Your task to perform on an android device: turn off improve location accuracy Image 0: 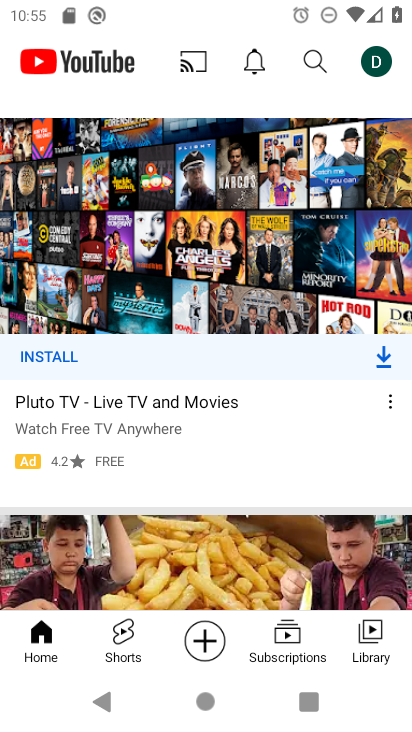
Step 0: press home button
Your task to perform on an android device: turn off improve location accuracy Image 1: 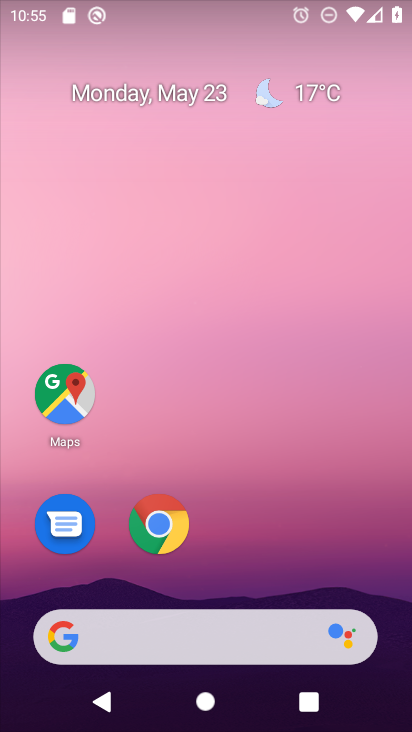
Step 1: drag from (216, 579) to (220, 141)
Your task to perform on an android device: turn off improve location accuracy Image 2: 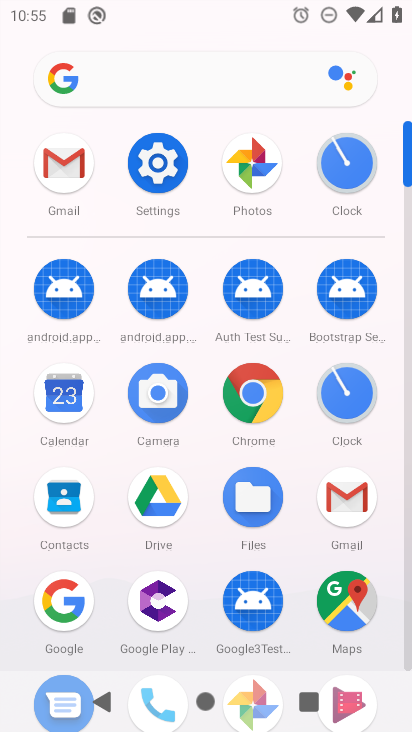
Step 2: click (137, 161)
Your task to perform on an android device: turn off improve location accuracy Image 3: 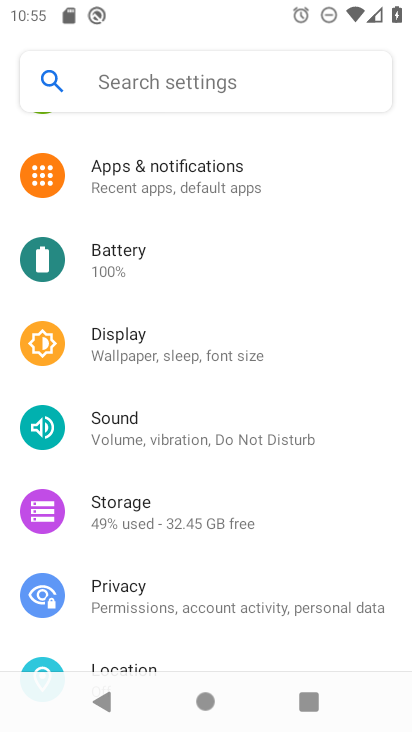
Step 3: click (170, 658)
Your task to perform on an android device: turn off improve location accuracy Image 4: 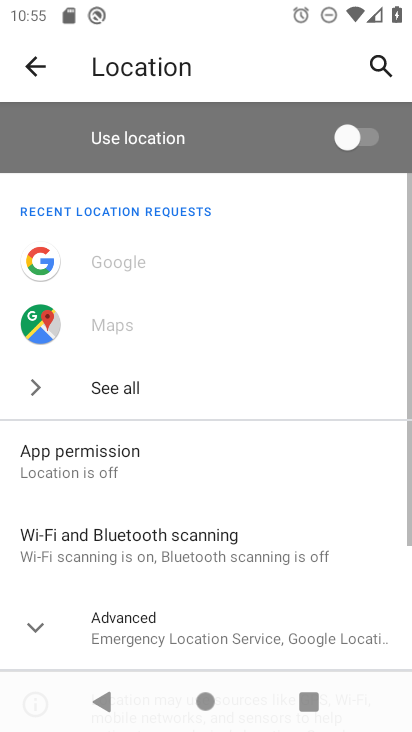
Step 4: drag from (193, 563) to (245, 262)
Your task to perform on an android device: turn off improve location accuracy Image 5: 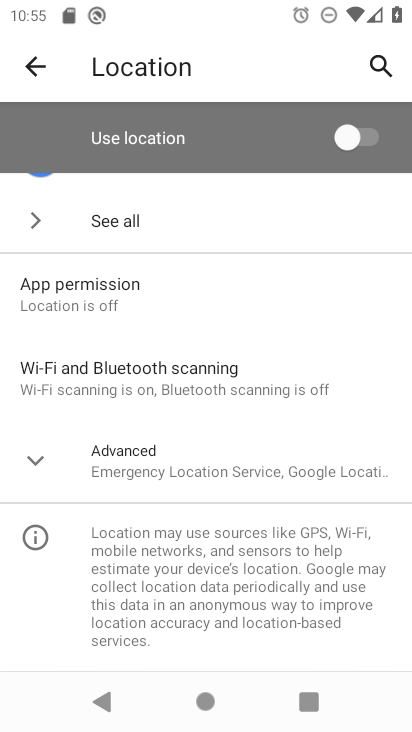
Step 5: click (224, 444)
Your task to perform on an android device: turn off improve location accuracy Image 6: 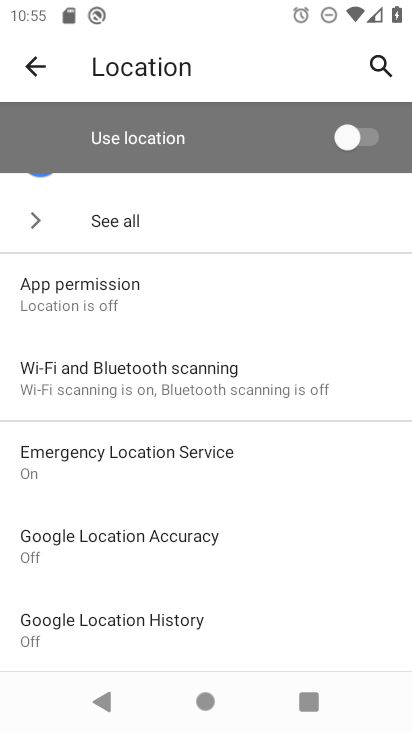
Step 6: click (214, 542)
Your task to perform on an android device: turn off improve location accuracy Image 7: 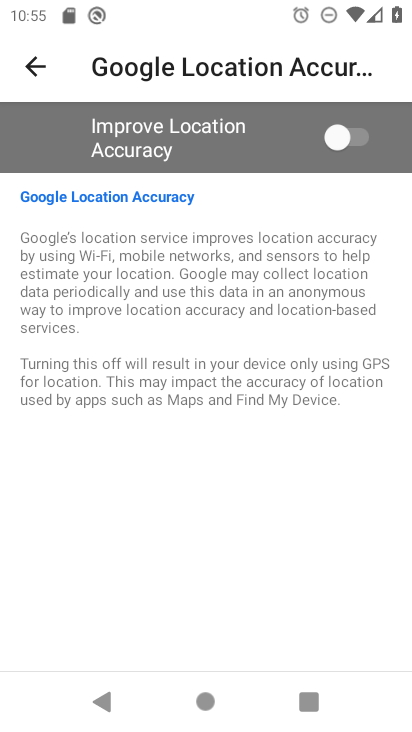
Step 7: task complete